Your task to perform on an android device: Go to Android settings Image 0: 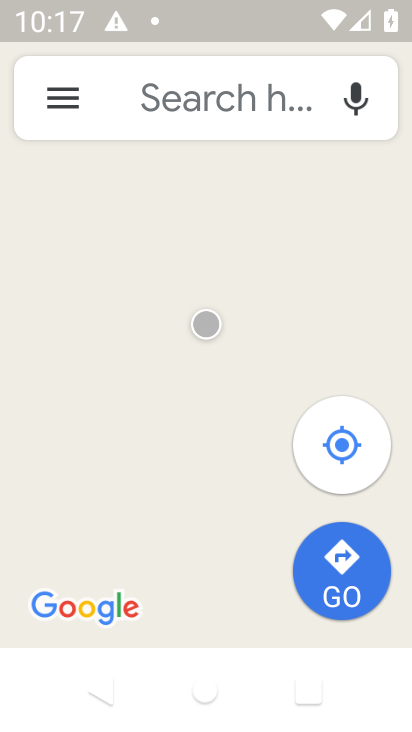
Step 0: press home button
Your task to perform on an android device: Go to Android settings Image 1: 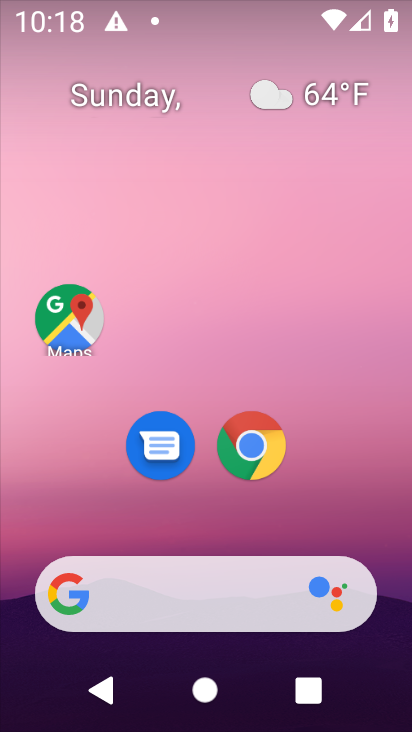
Step 1: click (232, 229)
Your task to perform on an android device: Go to Android settings Image 2: 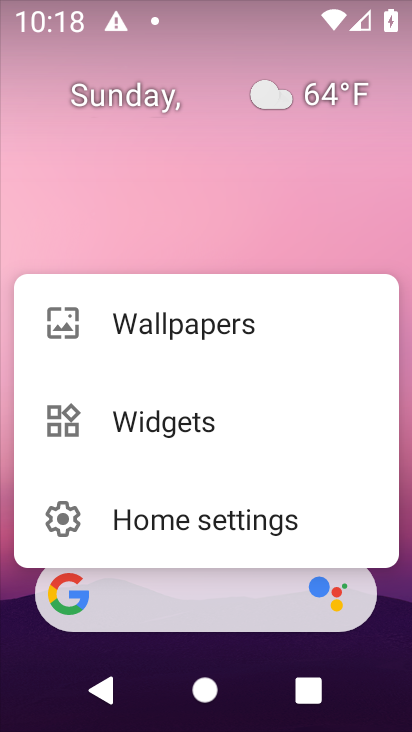
Step 2: drag from (204, 597) to (217, 62)
Your task to perform on an android device: Go to Android settings Image 3: 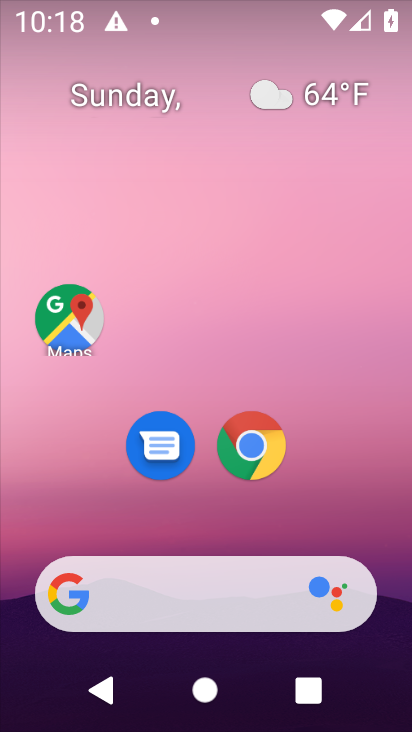
Step 3: drag from (197, 583) to (245, 40)
Your task to perform on an android device: Go to Android settings Image 4: 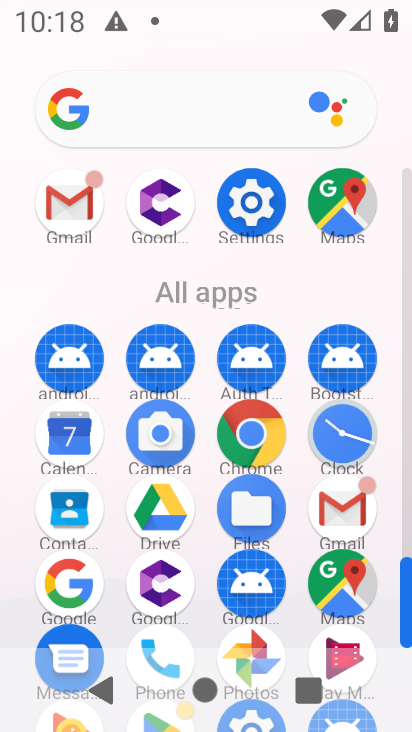
Step 4: click (254, 222)
Your task to perform on an android device: Go to Android settings Image 5: 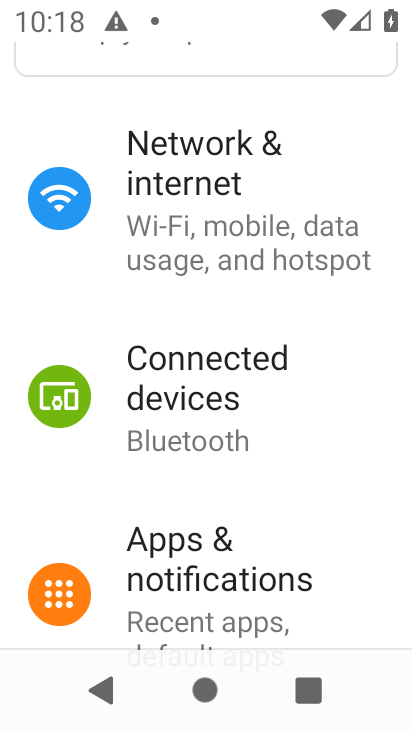
Step 5: task complete